Your task to perform on an android device: Open Wikipedia Image 0: 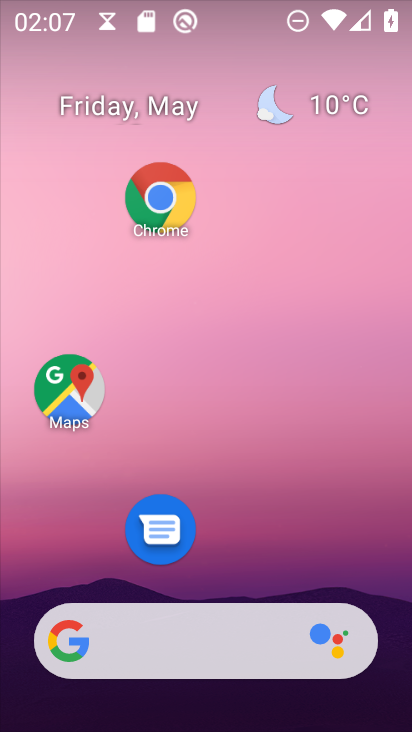
Step 0: drag from (295, 509) to (300, 221)
Your task to perform on an android device: Open Wikipedia Image 1: 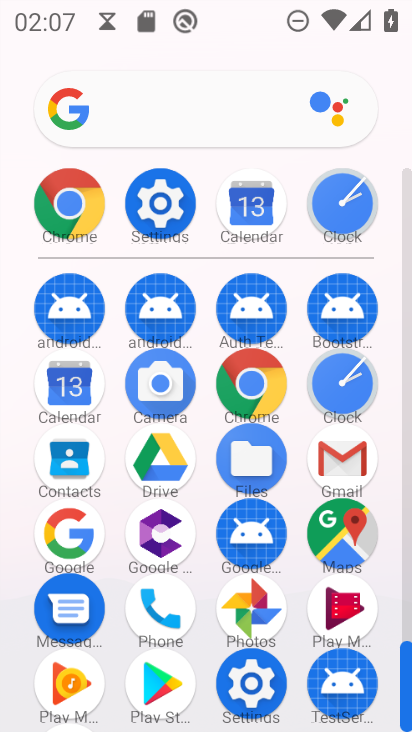
Step 1: click (66, 196)
Your task to perform on an android device: Open Wikipedia Image 2: 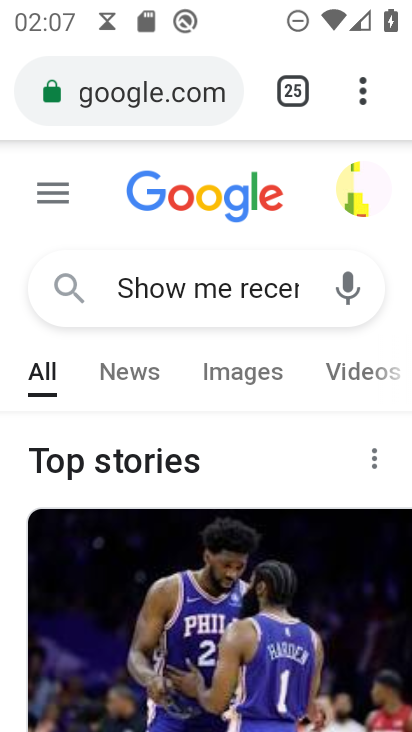
Step 2: click (377, 86)
Your task to perform on an android device: Open Wikipedia Image 3: 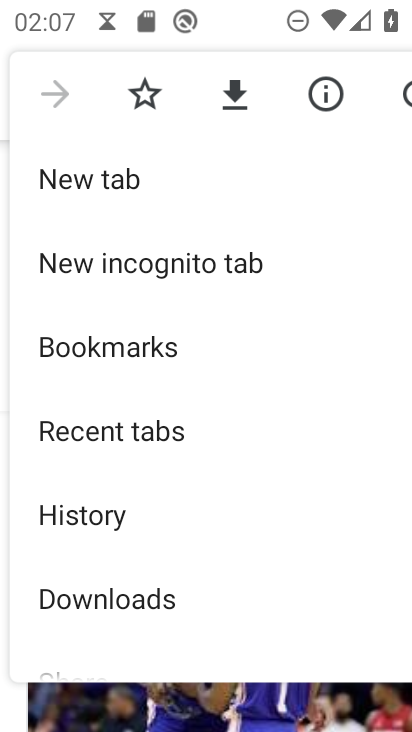
Step 3: click (131, 191)
Your task to perform on an android device: Open Wikipedia Image 4: 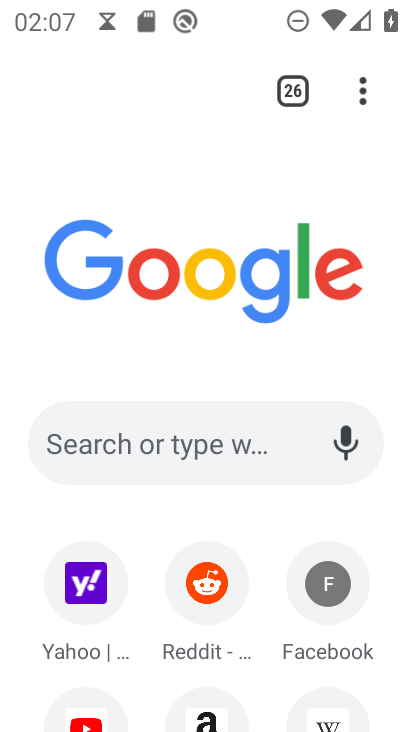
Step 4: drag from (205, 603) to (257, 256)
Your task to perform on an android device: Open Wikipedia Image 5: 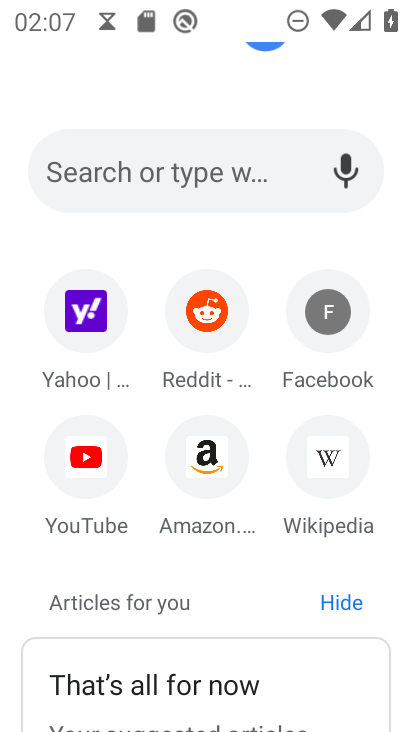
Step 5: click (341, 430)
Your task to perform on an android device: Open Wikipedia Image 6: 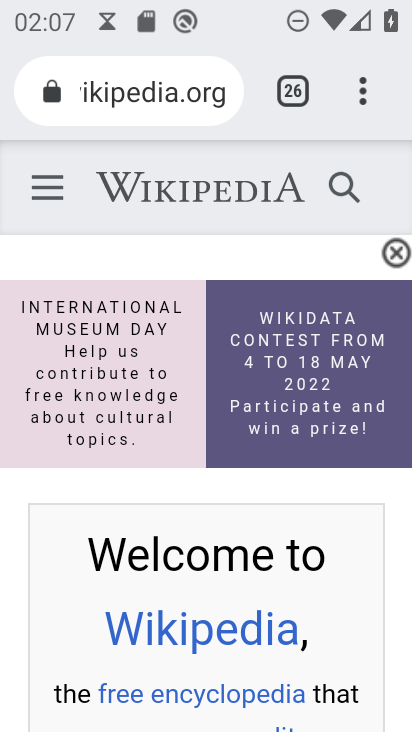
Step 6: task complete